Your task to perform on an android device: Open the stopwatch Image 0: 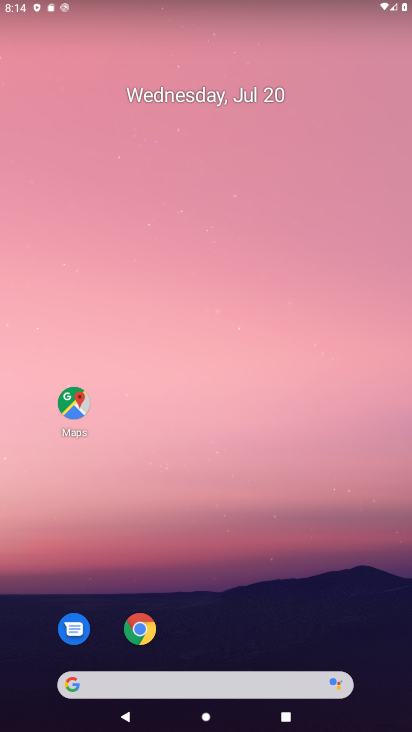
Step 0: drag from (209, 631) to (208, 120)
Your task to perform on an android device: Open the stopwatch Image 1: 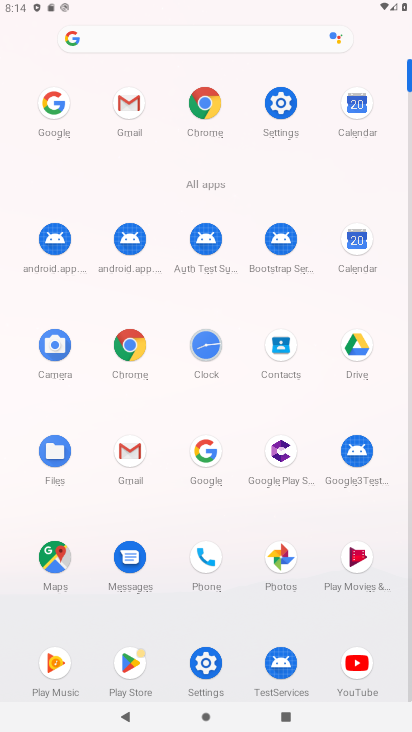
Step 1: click (215, 355)
Your task to perform on an android device: Open the stopwatch Image 2: 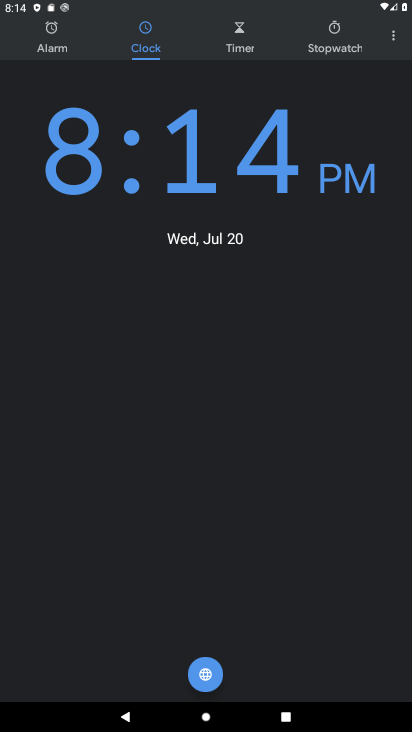
Step 2: click (345, 40)
Your task to perform on an android device: Open the stopwatch Image 3: 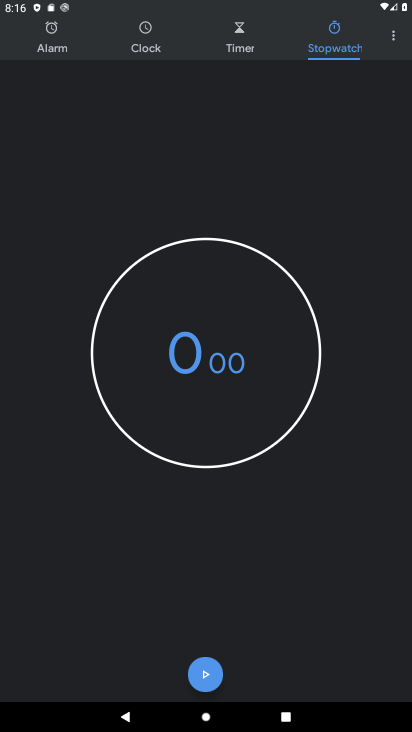
Step 3: task complete